Your task to perform on an android device: What's the weather going to be tomorrow? Image 0: 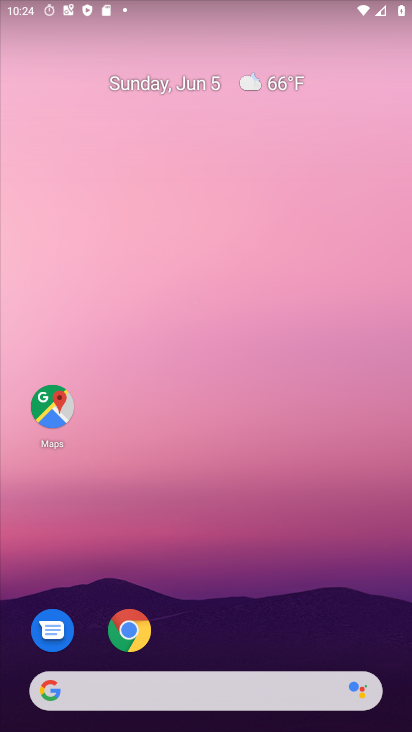
Step 0: drag from (210, 727) to (192, 5)
Your task to perform on an android device: What's the weather going to be tomorrow? Image 1: 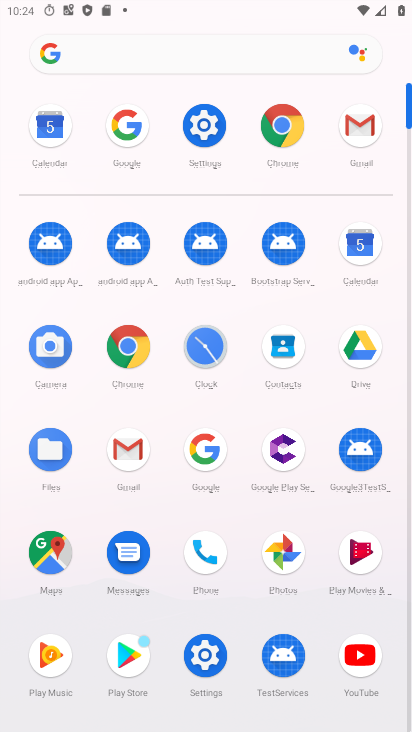
Step 1: click (211, 452)
Your task to perform on an android device: What's the weather going to be tomorrow? Image 2: 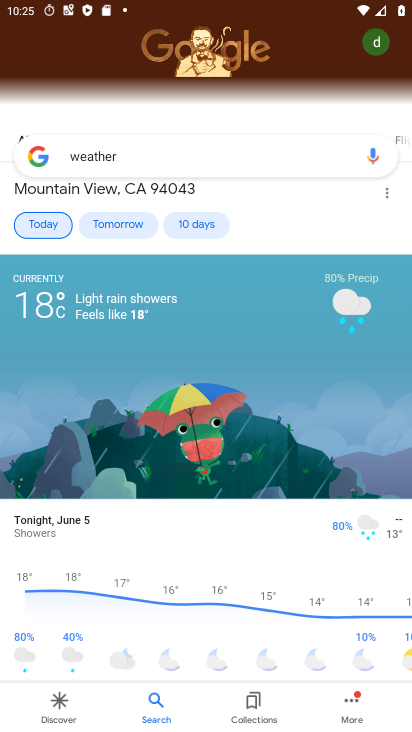
Step 2: click (112, 222)
Your task to perform on an android device: What's the weather going to be tomorrow? Image 3: 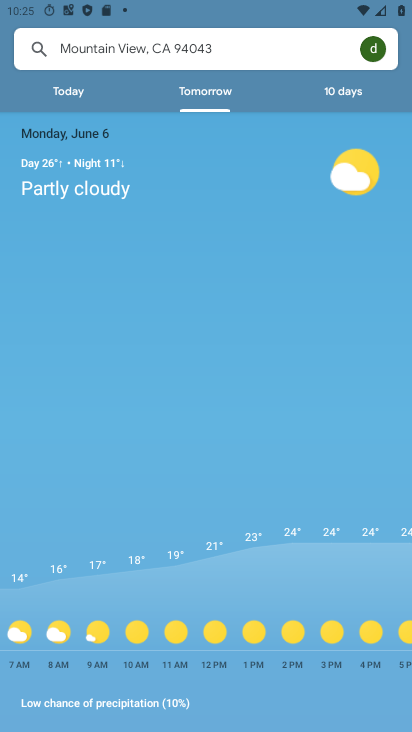
Step 3: task complete